Your task to perform on an android device: Open eBay Image 0: 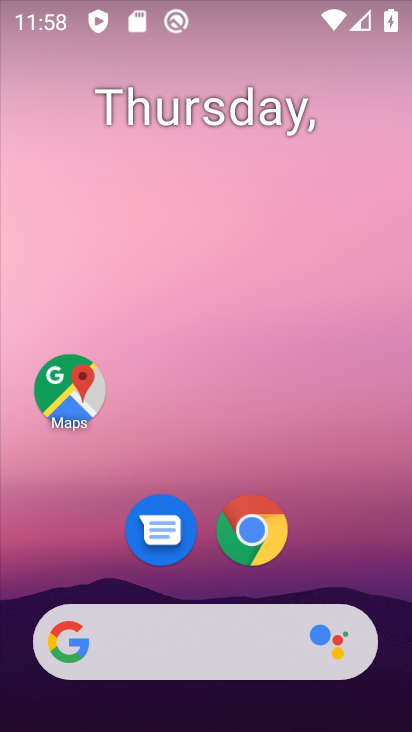
Step 0: click (256, 543)
Your task to perform on an android device: Open eBay Image 1: 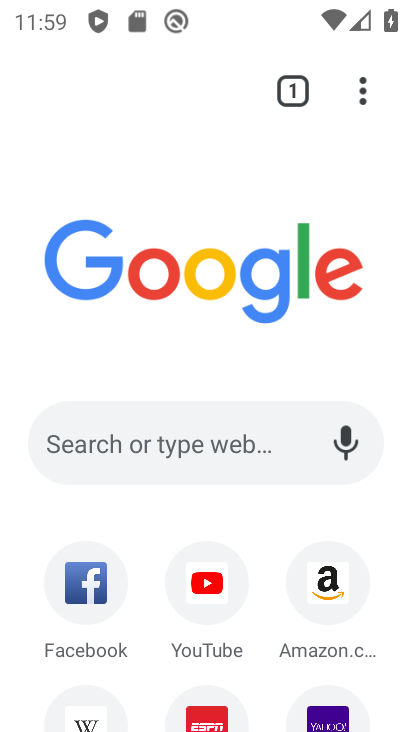
Step 1: click (200, 460)
Your task to perform on an android device: Open eBay Image 2: 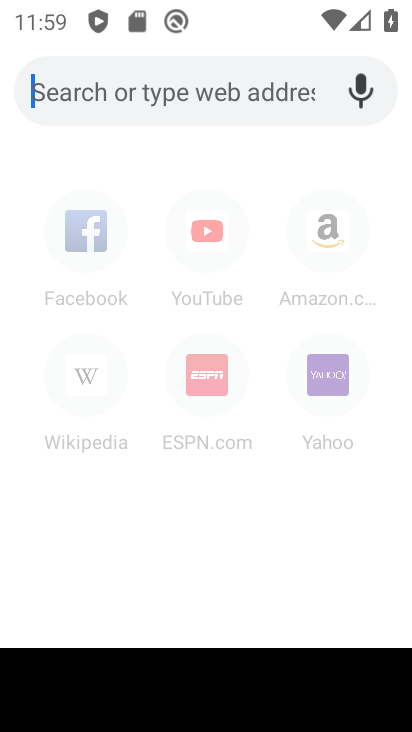
Step 2: type "ebay"
Your task to perform on an android device: Open eBay Image 3: 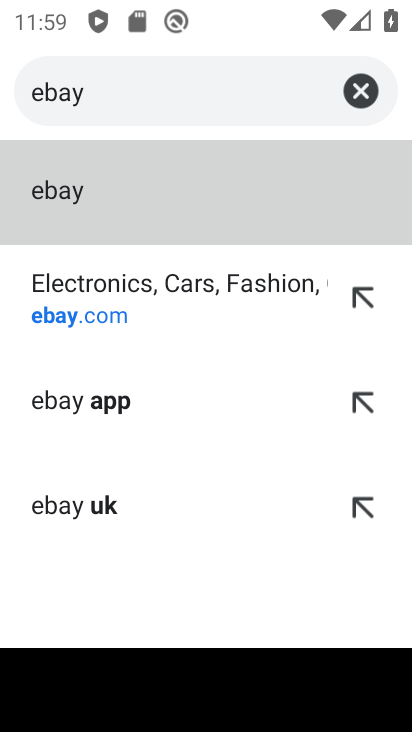
Step 3: click (148, 177)
Your task to perform on an android device: Open eBay Image 4: 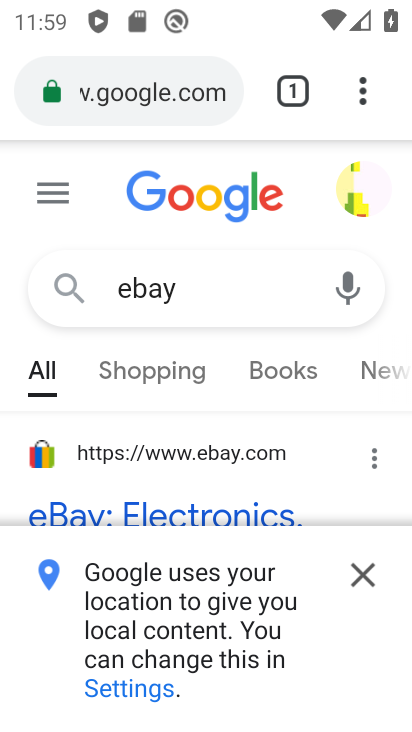
Step 4: click (366, 569)
Your task to perform on an android device: Open eBay Image 5: 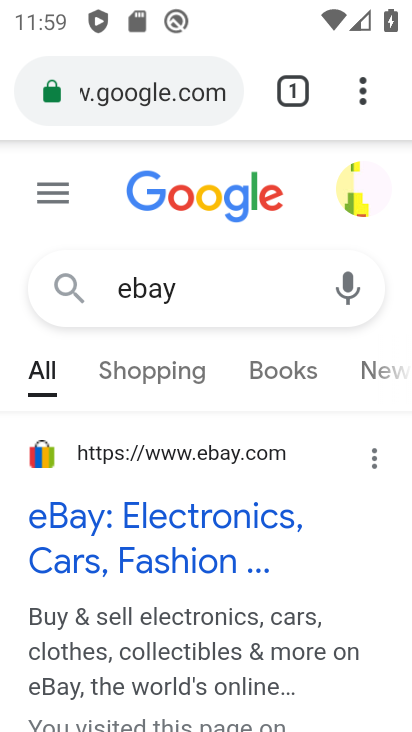
Step 5: click (175, 536)
Your task to perform on an android device: Open eBay Image 6: 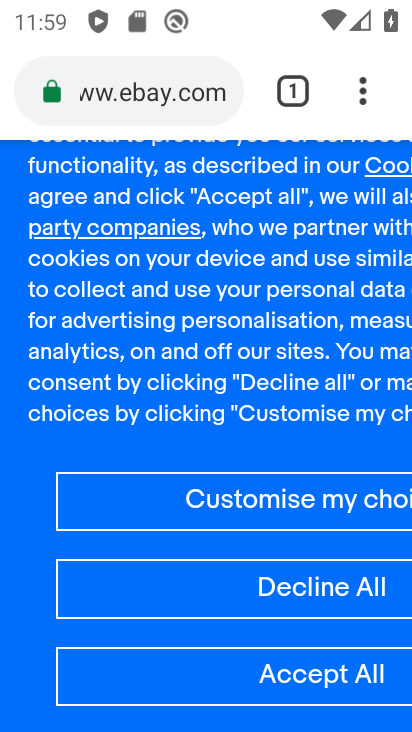
Step 6: task complete